Your task to perform on an android device: What is the recent news? Image 0: 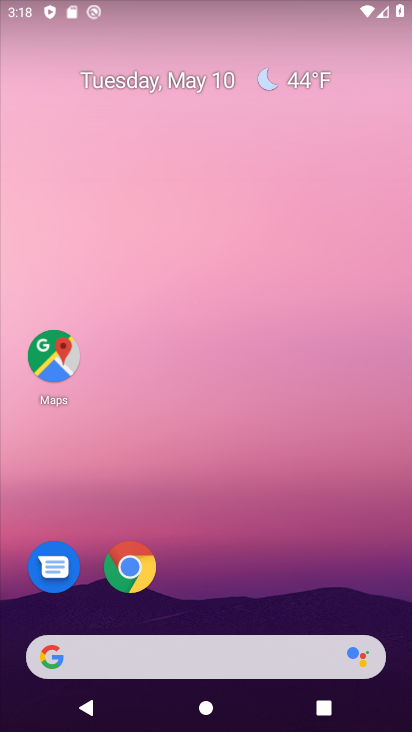
Step 0: drag from (254, 572) to (251, 108)
Your task to perform on an android device: What is the recent news? Image 1: 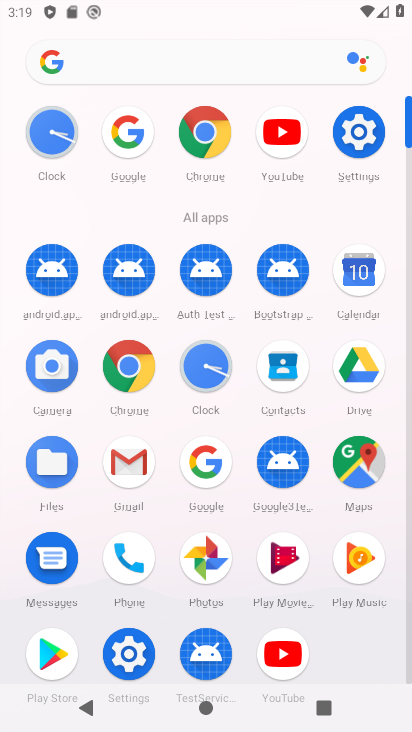
Step 1: click (203, 459)
Your task to perform on an android device: What is the recent news? Image 2: 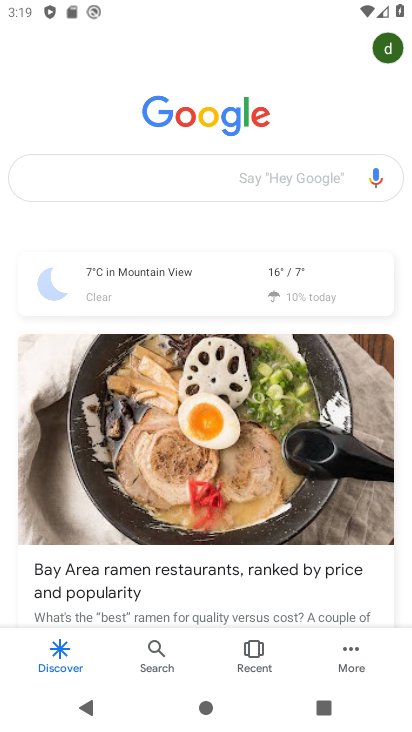
Step 2: click (198, 179)
Your task to perform on an android device: What is the recent news? Image 3: 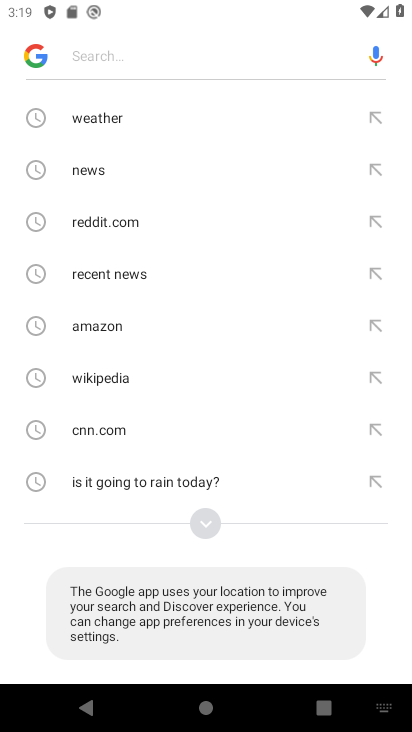
Step 3: click (138, 282)
Your task to perform on an android device: What is the recent news? Image 4: 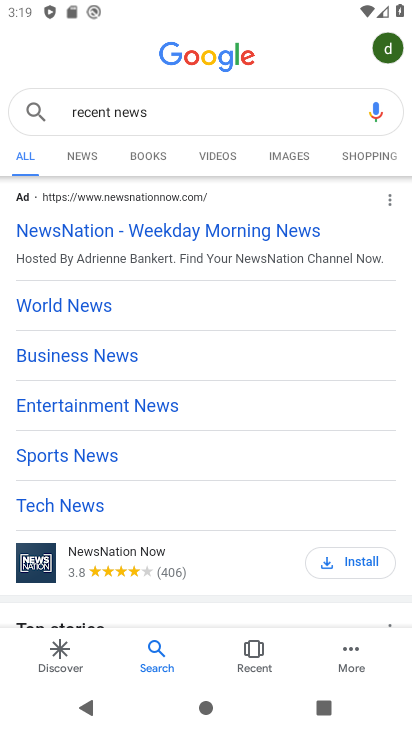
Step 4: task complete